Your task to perform on an android device: See recent photos Image 0: 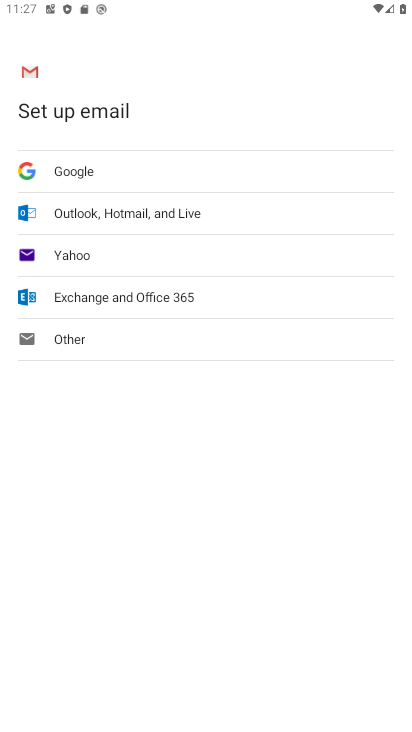
Step 0: press home button
Your task to perform on an android device: See recent photos Image 1: 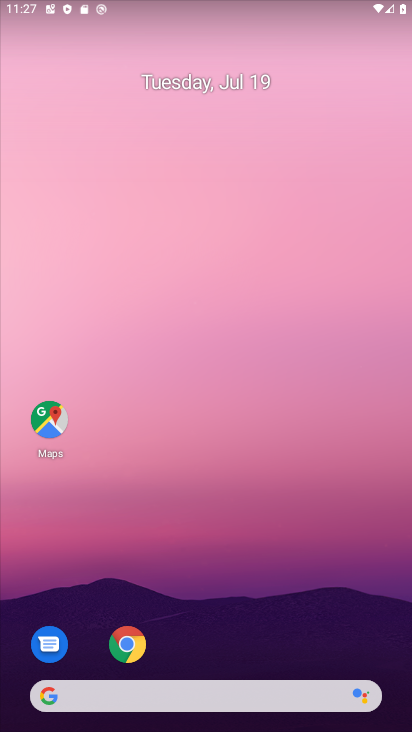
Step 1: drag from (372, 694) to (360, 366)
Your task to perform on an android device: See recent photos Image 2: 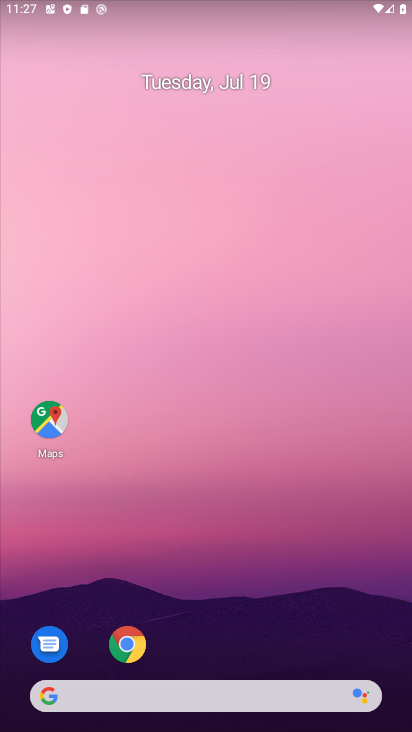
Step 2: drag from (302, 329) to (148, 33)
Your task to perform on an android device: See recent photos Image 3: 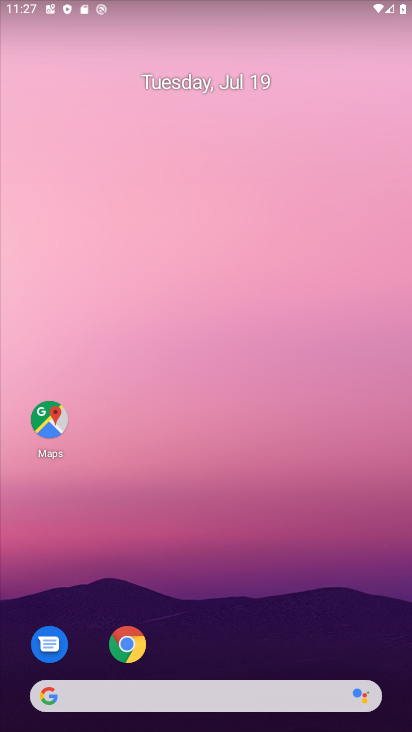
Step 3: drag from (298, 649) to (300, 72)
Your task to perform on an android device: See recent photos Image 4: 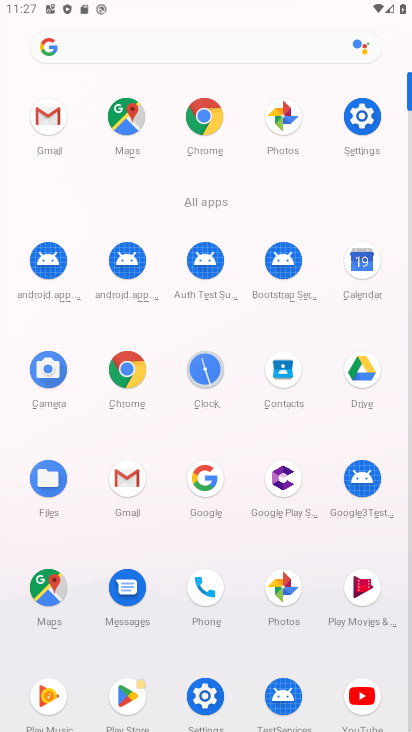
Step 4: click (260, 578)
Your task to perform on an android device: See recent photos Image 5: 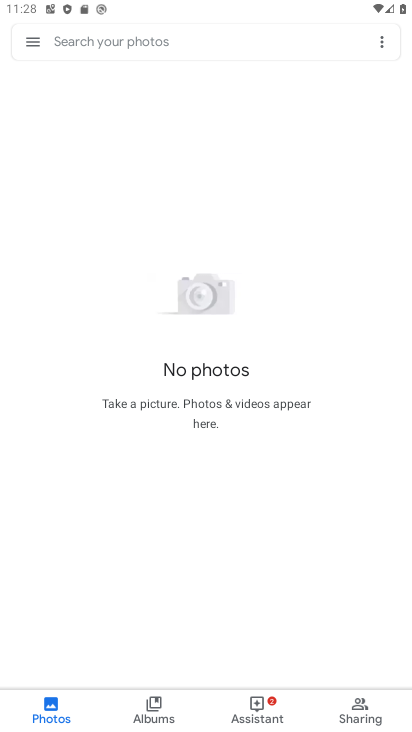
Step 5: task complete